Your task to perform on an android device: turn on translation in the chrome app Image 0: 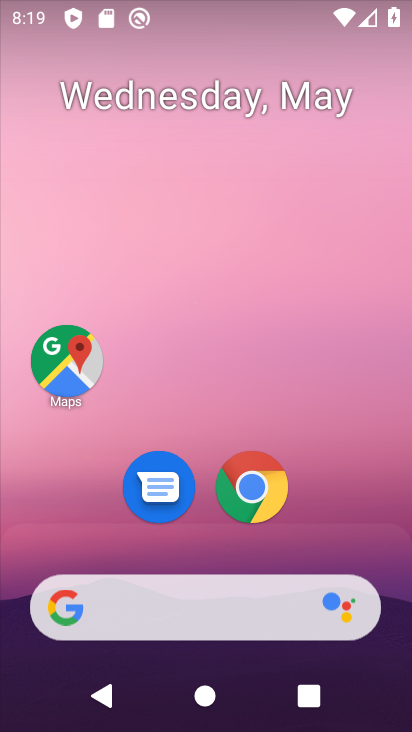
Step 0: press home button
Your task to perform on an android device: turn on translation in the chrome app Image 1: 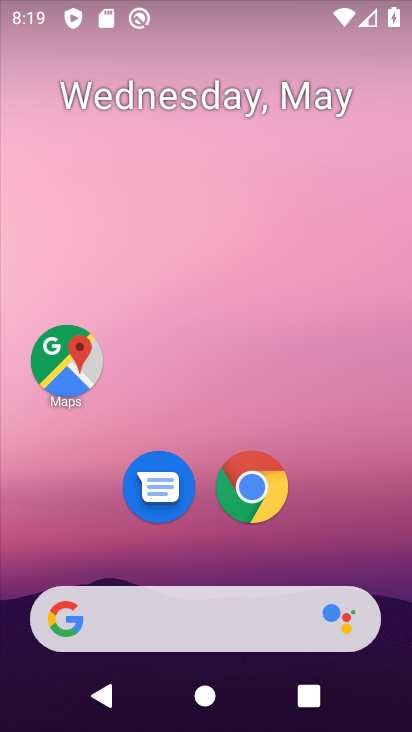
Step 1: click (247, 489)
Your task to perform on an android device: turn on translation in the chrome app Image 2: 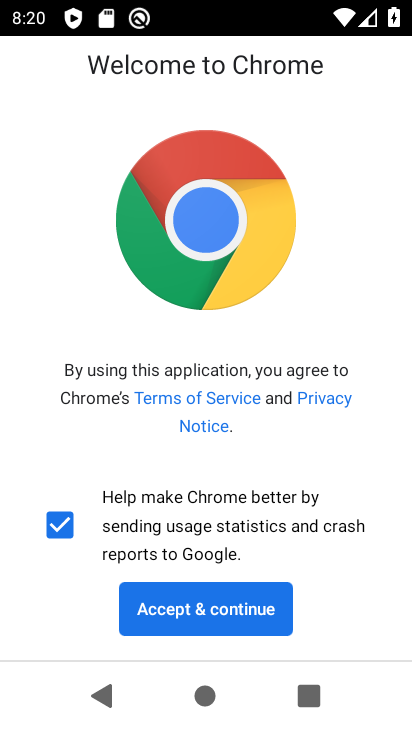
Step 2: click (189, 600)
Your task to perform on an android device: turn on translation in the chrome app Image 3: 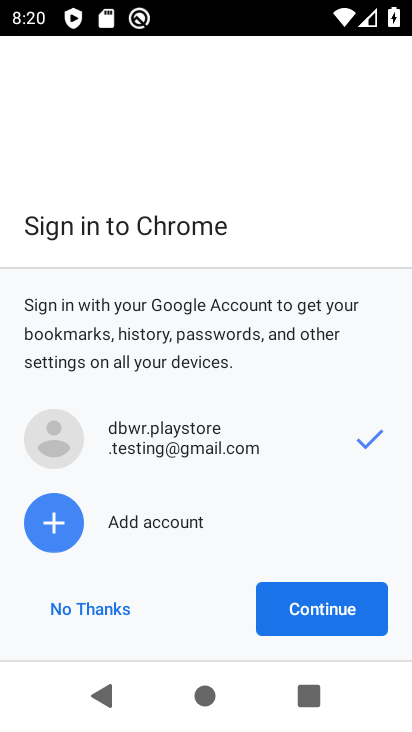
Step 3: click (363, 605)
Your task to perform on an android device: turn on translation in the chrome app Image 4: 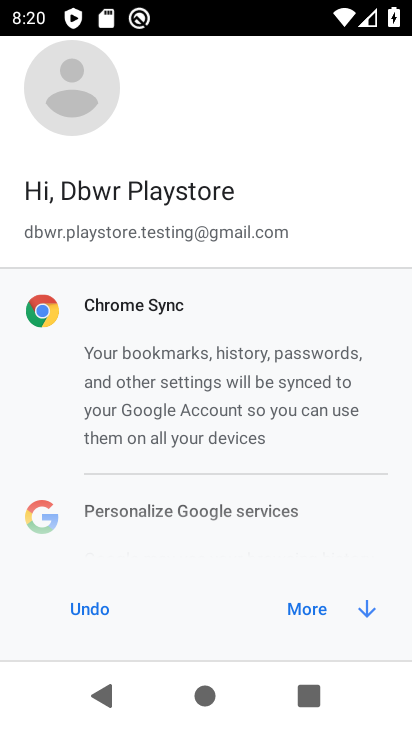
Step 4: click (334, 601)
Your task to perform on an android device: turn on translation in the chrome app Image 5: 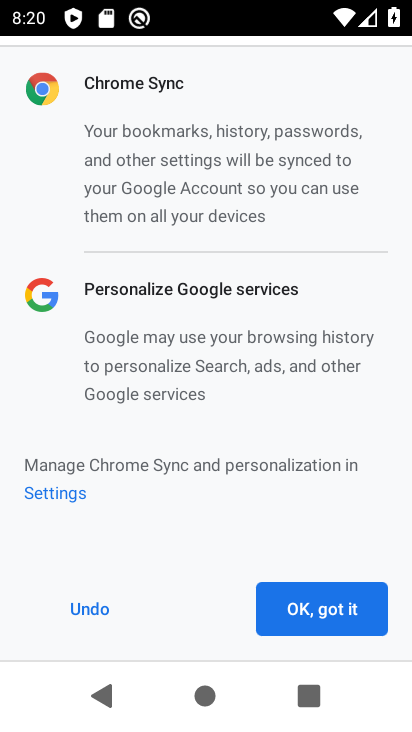
Step 5: click (333, 605)
Your task to perform on an android device: turn on translation in the chrome app Image 6: 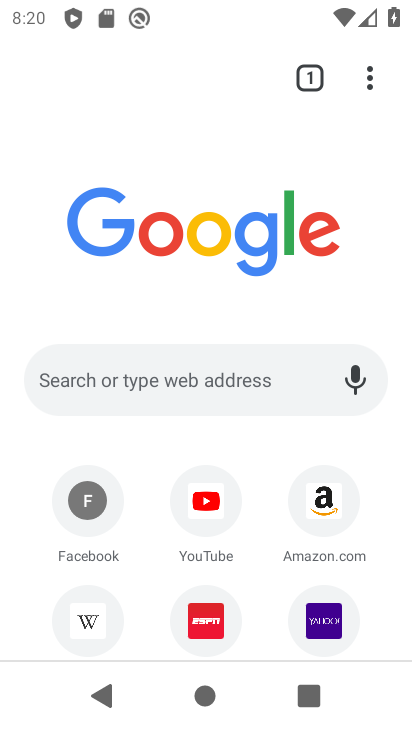
Step 6: click (371, 67)
Your task to perform on an android device: turn on translation in the chrome app Image 7: 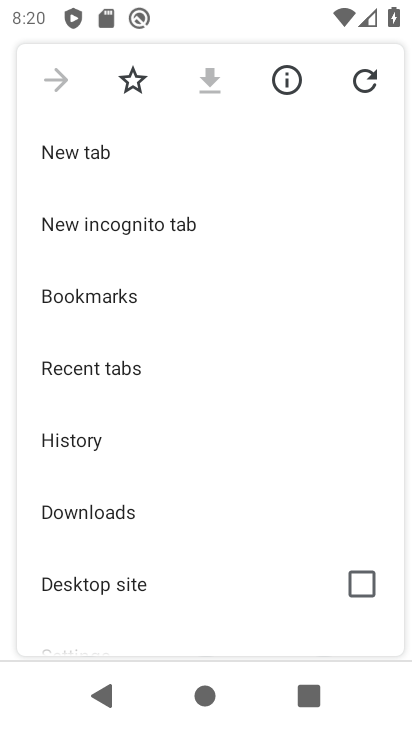
Step 7: drag from (207, 580) to (208, 63)
Your task to perform on an android device: turn on translation in the chrome app Image 8: 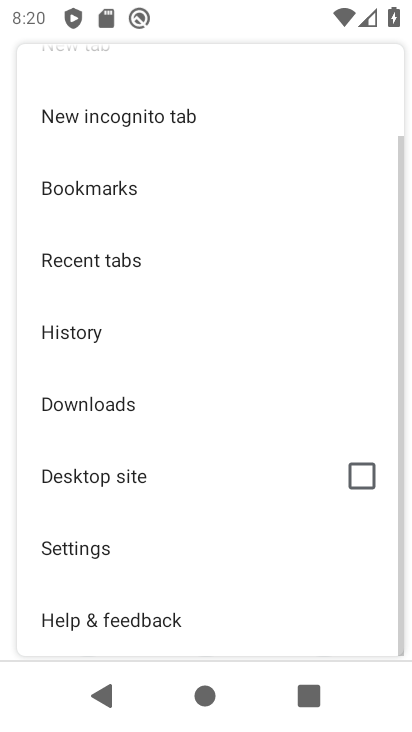
Step 8: click (116, 546)
Your task to perform on an android device: turn on translation in the chrome app Image 9: 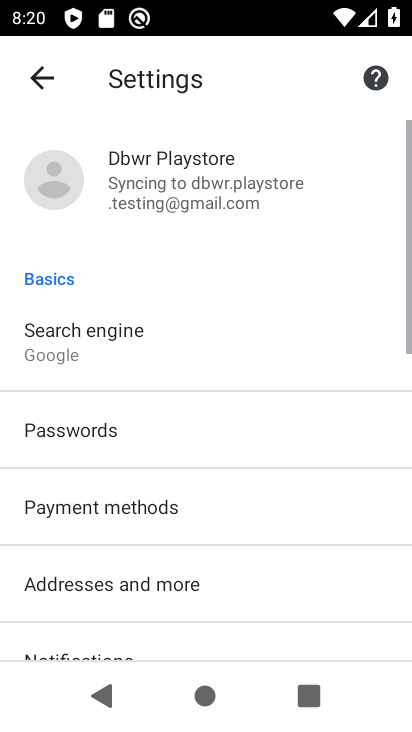
Step 9: drag from (252, 597) to (333, 41)
Your task to perform on an android device: turn on translation in the chrome app Image 10: 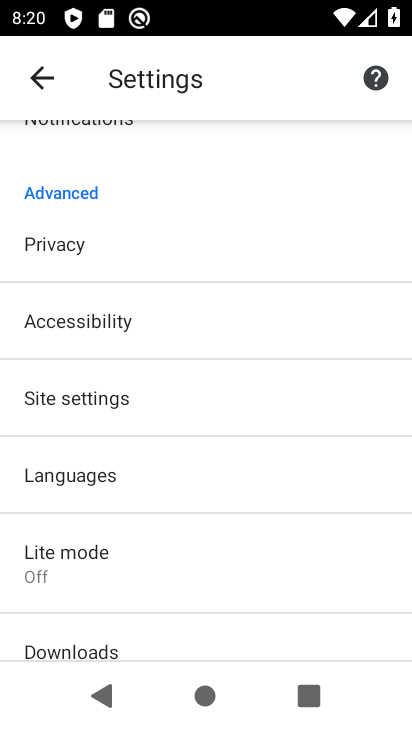
Step 10: click (138, 470)
Your task to perform on an android device: turn on translation in the chrome app Image 11: 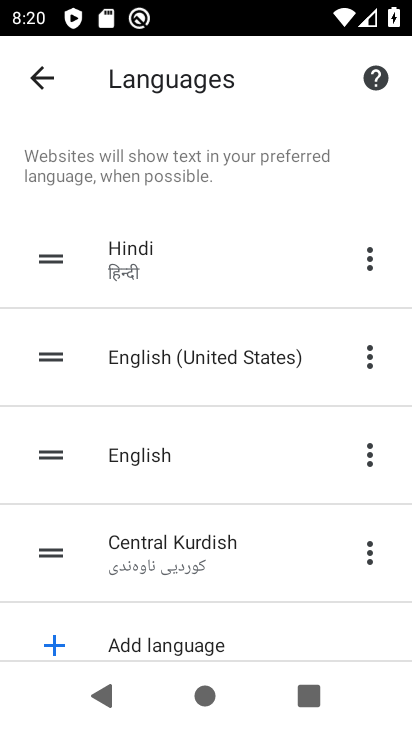
Step 11: drag from (186, 567) to (224, 242)
Your task to perform on an android device: turn on translation in the chrome app Image 12: 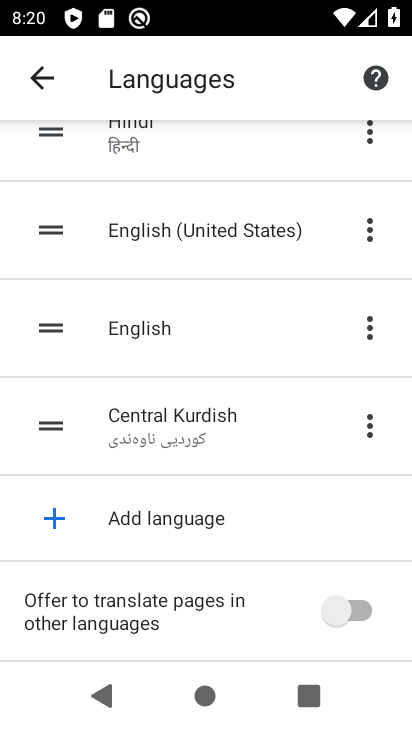
Step 12: click (353, 604)
Your task to perform on an android device: turn on translation in the chrome app Image 13: 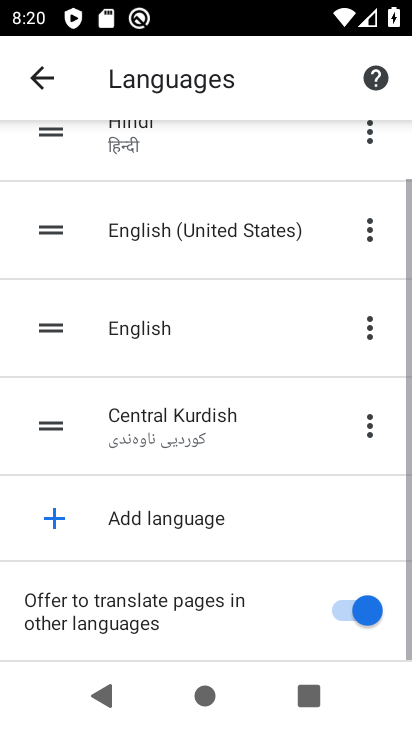
Step 13: task complete